Your task to perform on an android device: Go to display settings Image 0: 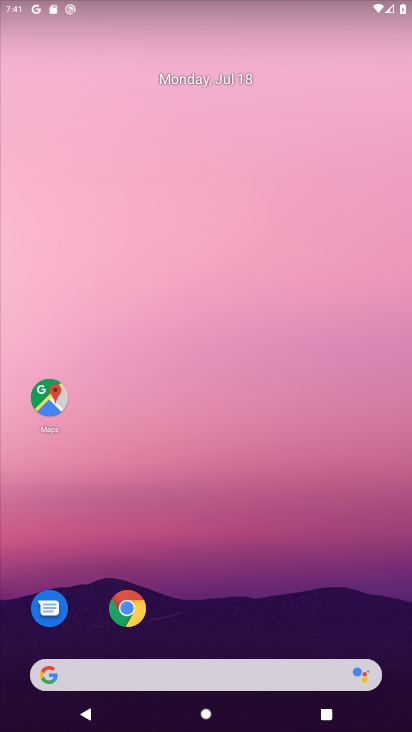
Step 0: drag from (198, 647) to (193, 146)
Your task to perform on an android device: Go to display settings Image 1: 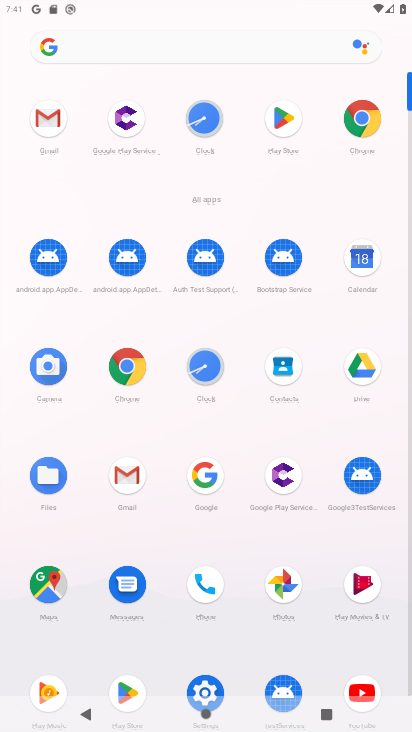
Step 1: click (201, 678)
Your task to perform on an android device: Go to display settings Image 2: 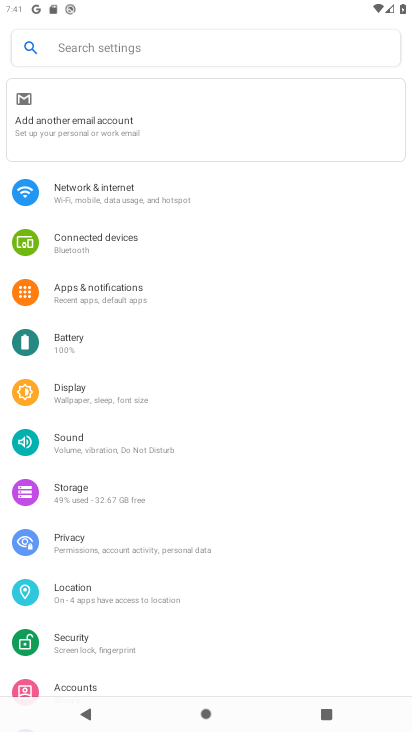
Step 2: click (66, 399)
Your task to perform on an android device: Go to display settings Image 3: 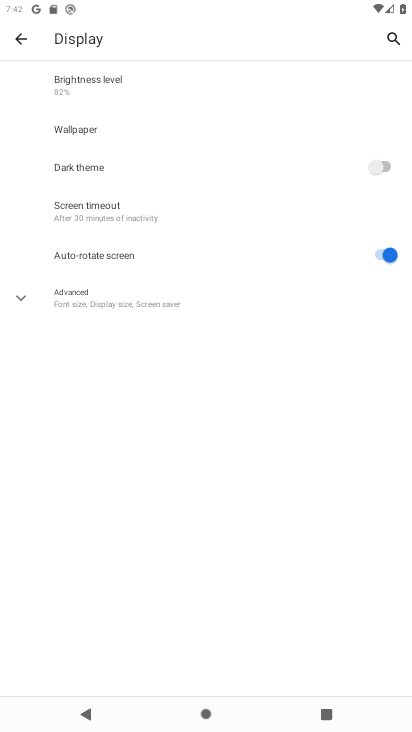
Step 3: task complete